Your task to perform on an android device: Search for Mexican restaurants on Maps Image 0: 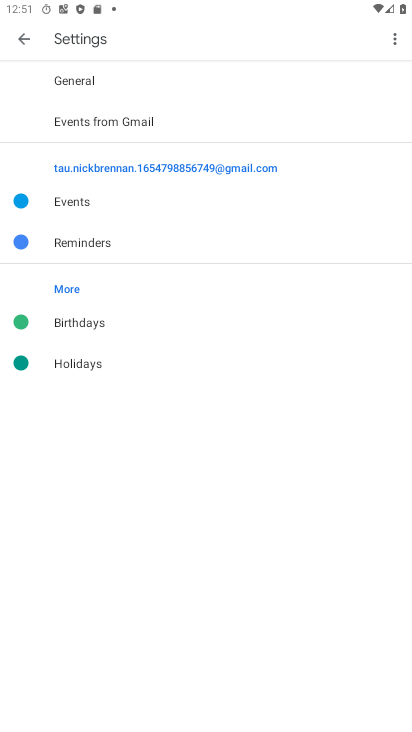
Step 0: drag from (281, 730) to (267, 300)
Your task to perform on an android device: Search for Mexican restaurants on Maps Image 1: 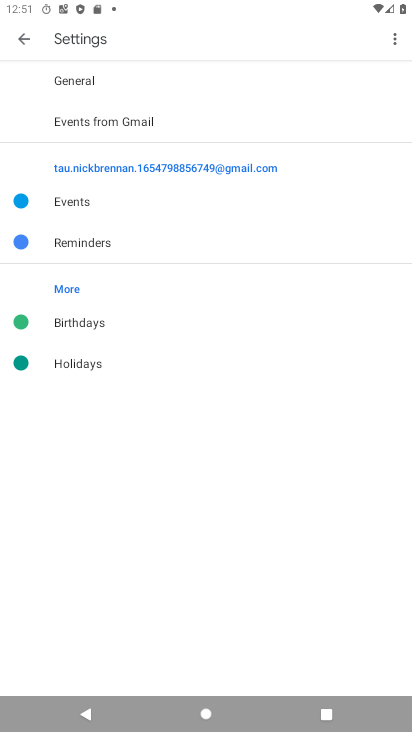
Step 1: press home button
Your task to perform on an android device: Search for Mexican restaurants on Maps Image 2: 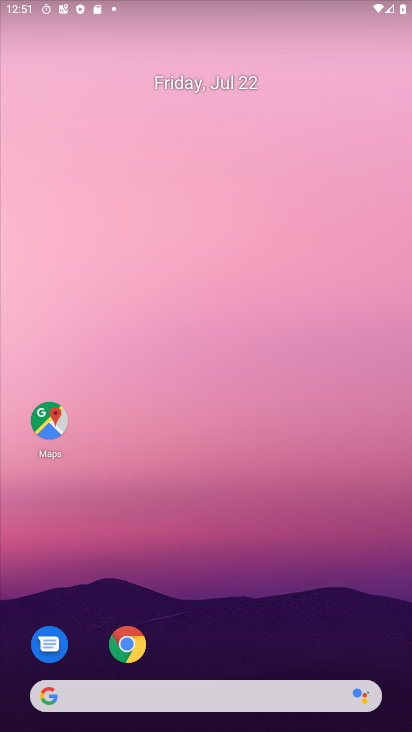
Step 2: drag from (218, 688) to (222, 59)
Your task to perform on an android device: Search for Mexican restaurants on Maps Image 3: 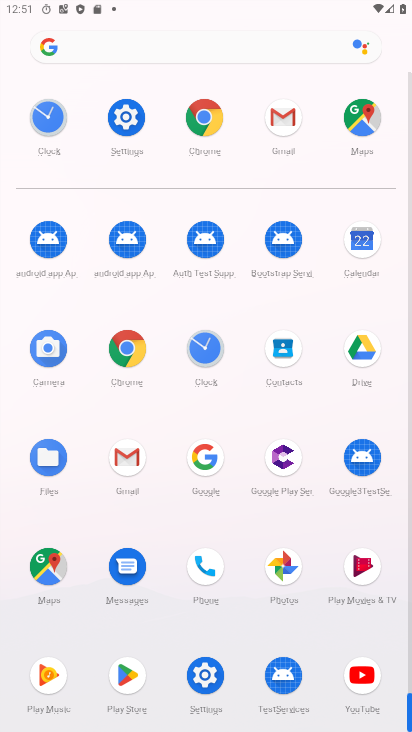
Step 3: click (355, 143)
Your task to perform on an android device: Search for Mexican restaurants on Maps Image 4: 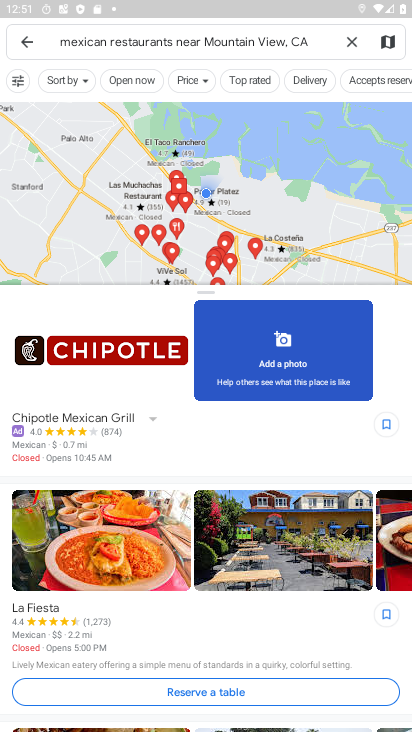
Step 4: click (353, 37)
Your task to perform on an android device: Search for Mexican restaurants on Maps Image 5: 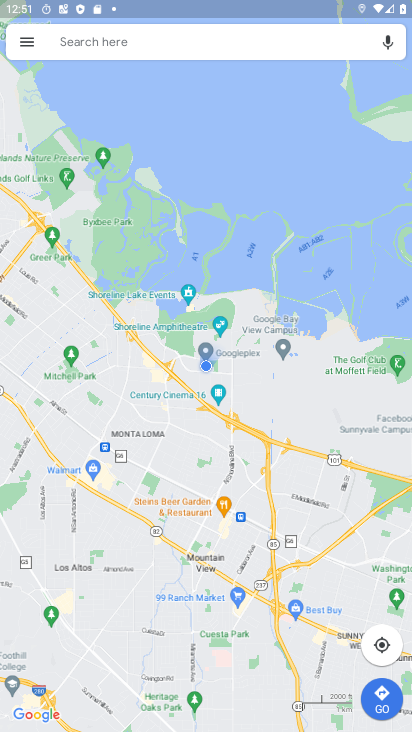
Step 5: click (225, 44)
Your task to perform on an android device: Search for Mexican restaurants on Maps Image 6: 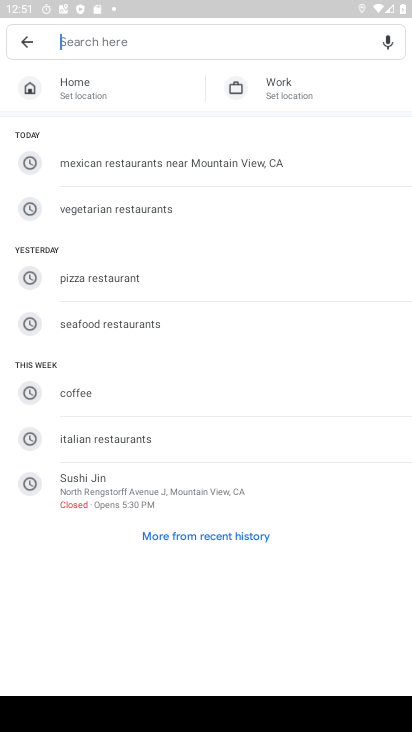
Step 6: type "mexican"
Your task to perform on an android device: Search for Mexican restaurants on Maps Image 7: 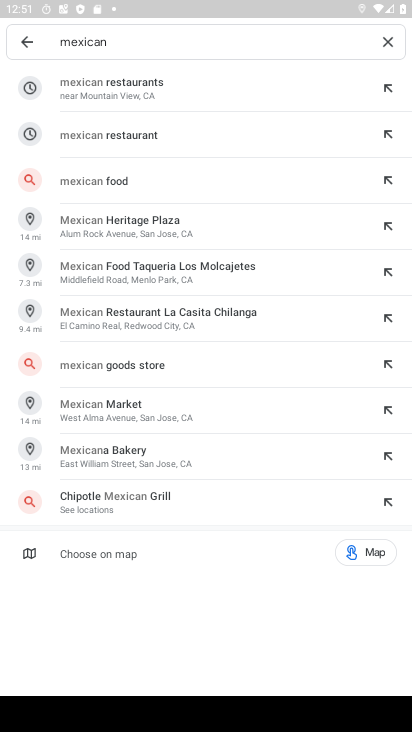
Step 7: click (178, 92)
Your task to perform on an android device: Search for Mexican restaurants on Maps Image 8: 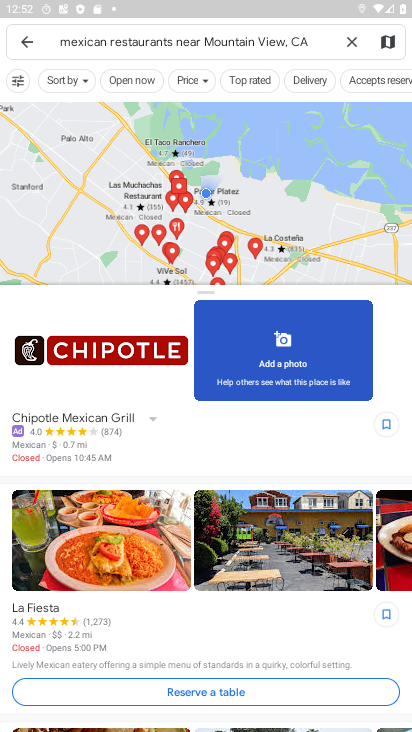
Step 8: task complete